Your task to perform on an android device: toggle improve location accuracy Image 0: 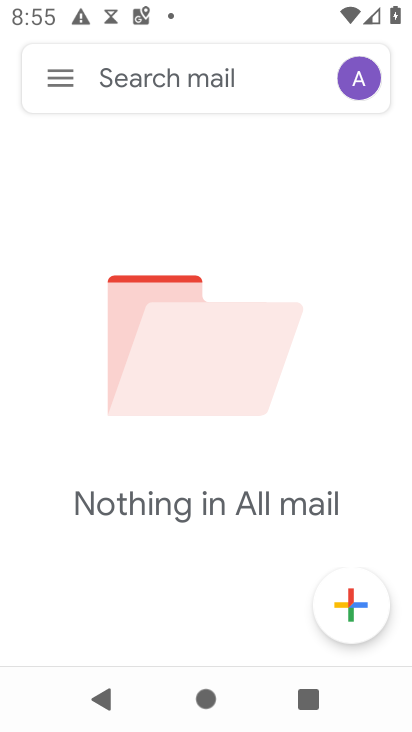
Step 0: press home button
Your task to perform on an android device: toggle improve location accuracy Image 1: 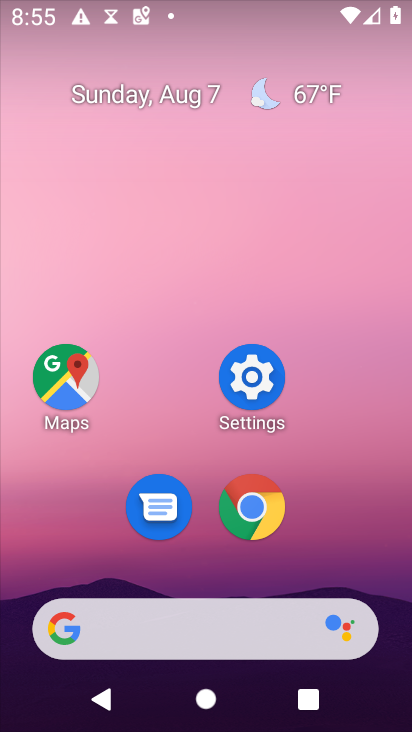
Step 1: drag from (180, 626) to (360, 96)
Your task to perform on an android device: toggle improve location accuracy Image 2: 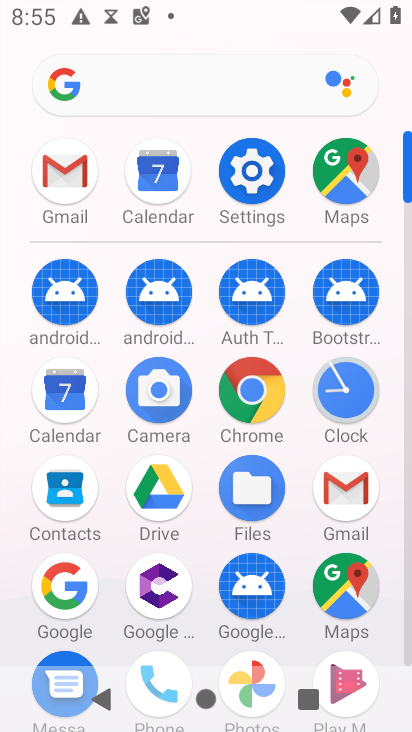
Step 2: click (254, 178)
Your task to perform on an android device: toggle improve location accuracy Image 3: 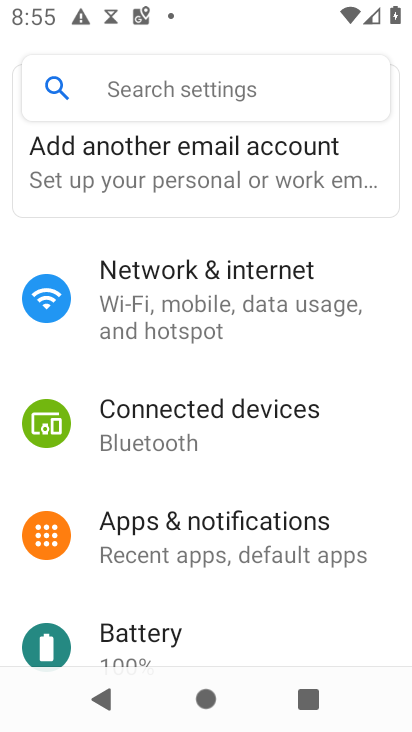
Step 3: drag from (232, 599) to (411, 160)
Your task to perform on an android device: toggle improve location accuracy Image 4: 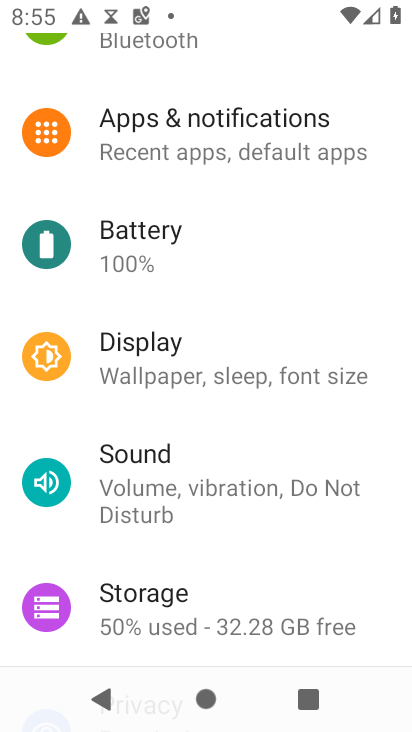
Step 4: drag from (233, 558) to (356, 177)
Your task to perform on an android device: toggle improve location accuracy Image 5: 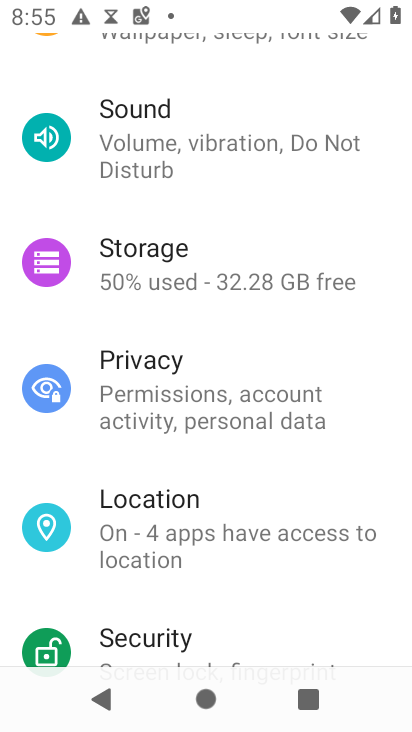
Step 5: click (202, 517)
Your task to perform on an android device: toggle improve location accuracy Image 6: 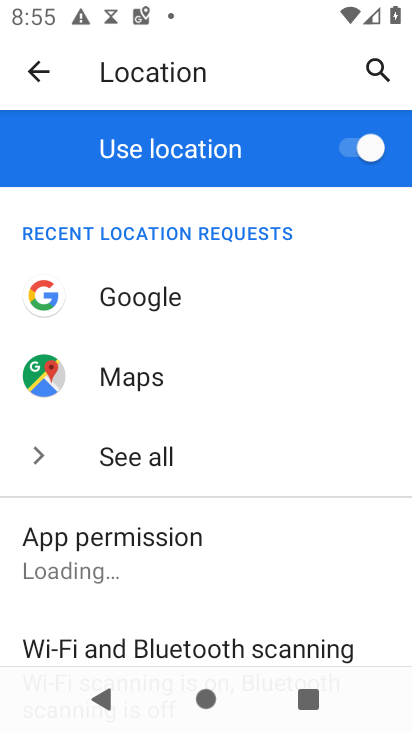
Step 6: drag from (233, 577) to (386, 146)
Your task to perform on an android device: toggle improve location accuracy Image 7: 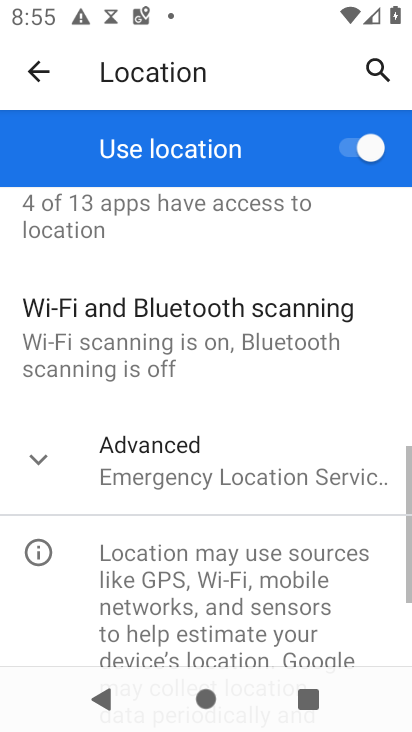
Step 7: click (182, 437)
Your task to perform on an android device: toggle improve location accuracy Image 8: 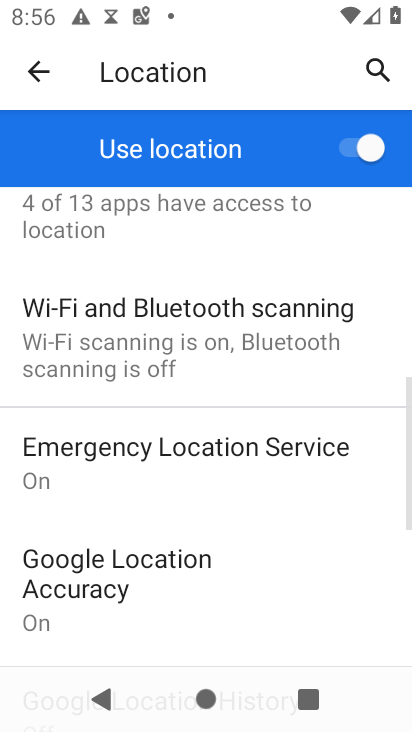
Step 8: drag from (226, 568) to (350, 242)
Your task to perform on an android device: toggle improve location accuracy Image 9: 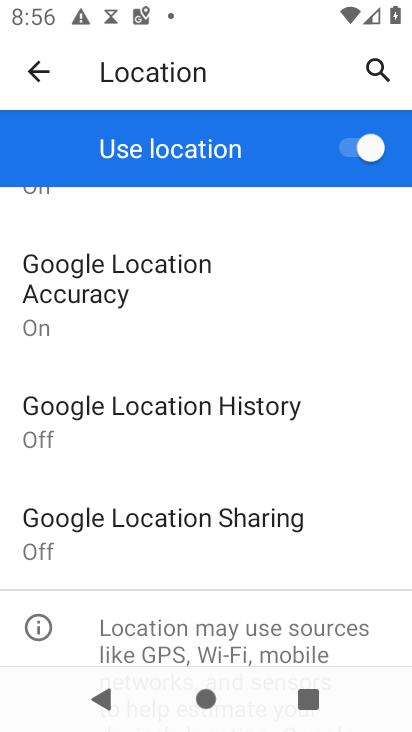
Step 9: click (108, 295)
Your task to perform on an android device: toggle improve location accuracy Image 10: 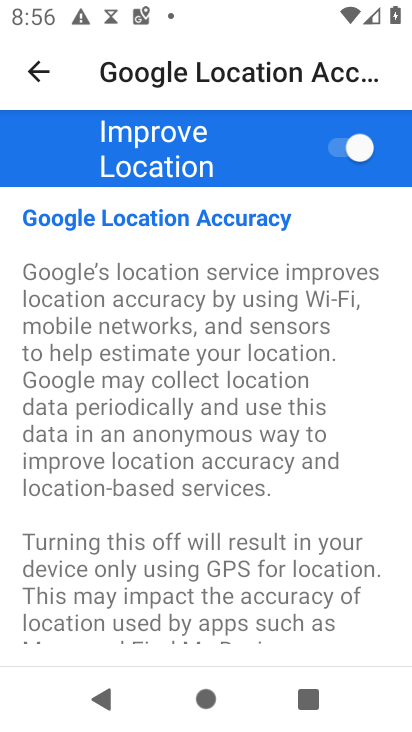
Step 10: click (336, 147)
Your task to perform on an android device: toggle improve location accuracy Image 11: 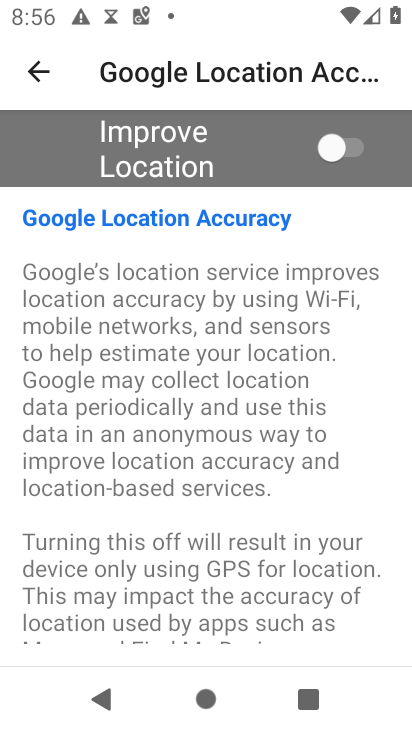
Step 11: task complete